Your task to perform on an android device: toggle sleep mode Image 0: 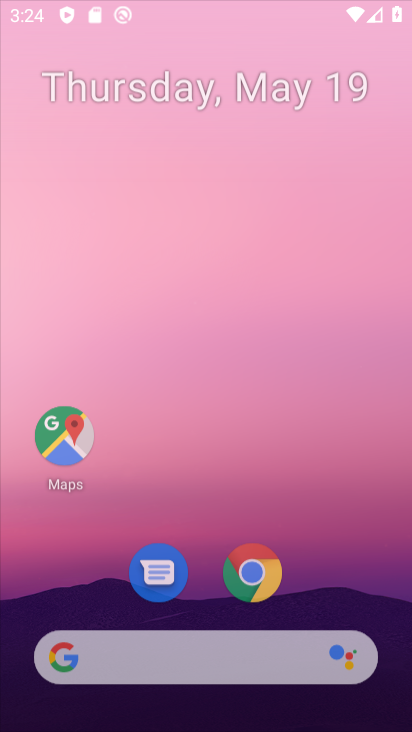
Step 0: click (371, 220)
Your task to perform on an android device: toggle sleep mode Image 1: 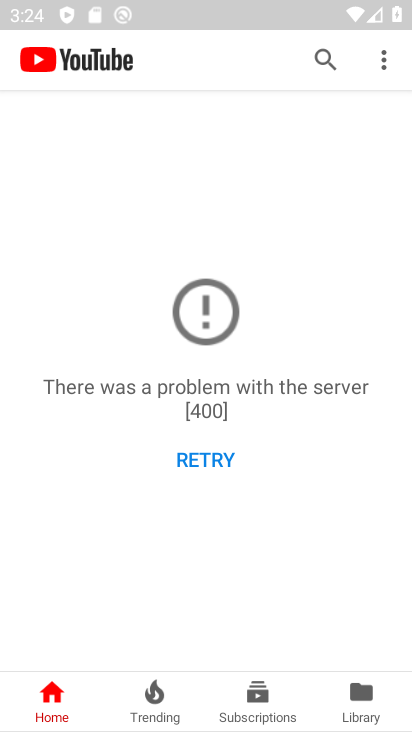
Step 1: press home button
Your task to perform on an android device: toggle sleep mode Image 2: 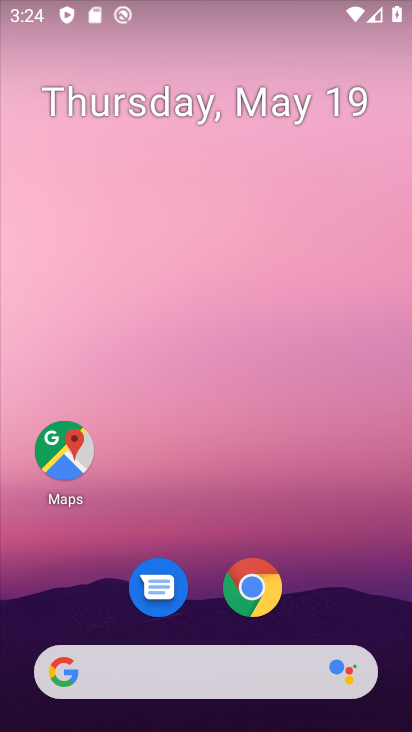
Step 2: drag from (357, 589) to (351, 128)
Your task to perform on an android device: toggle sleep mode Image 3: 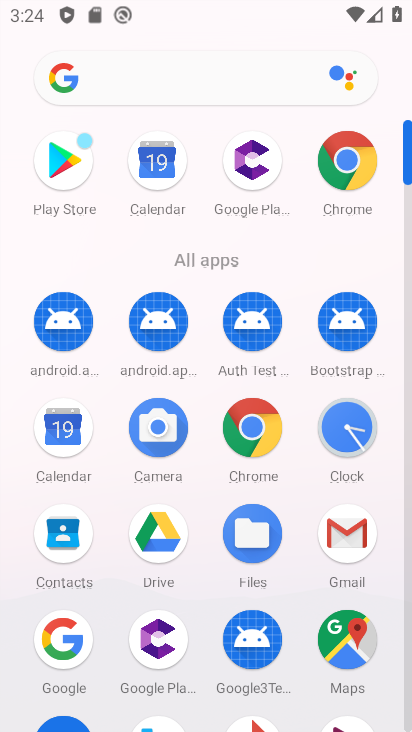
Step 3: drag from (390, 588) to (386, 226)
Your task to perform on an android device: toggle sleep mode Image 4: 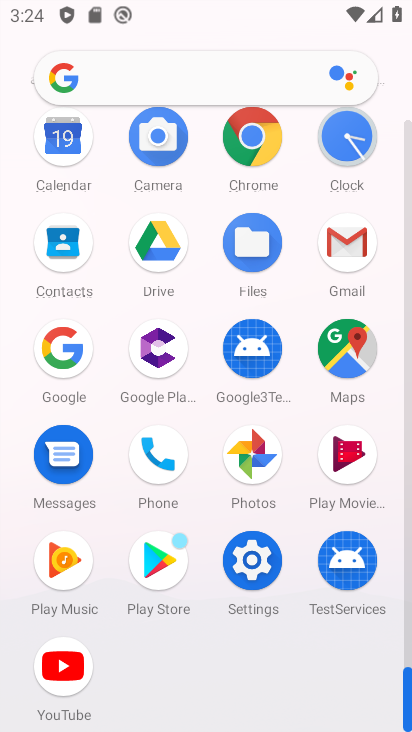
Step 4: click (256, 597)
Your task to perform on an android device: toggle sleep mode Image 5: 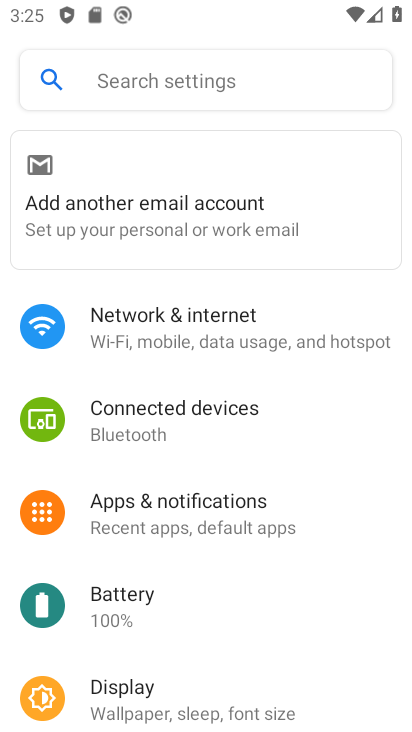
Step 5: drag from (337, 638) to (346, 501)
Your task to perform on an android device: toggle sleep mode Image 6: 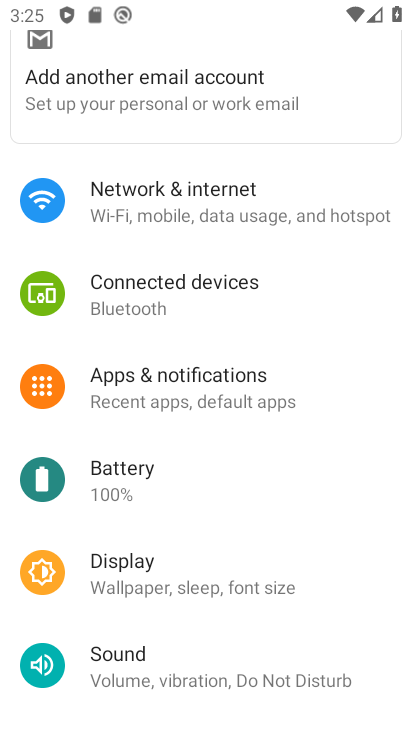
Step 6: drag from (359, 670) to (364, 524)
Your task to perform on an android device: toggle sleep mode Image 7: 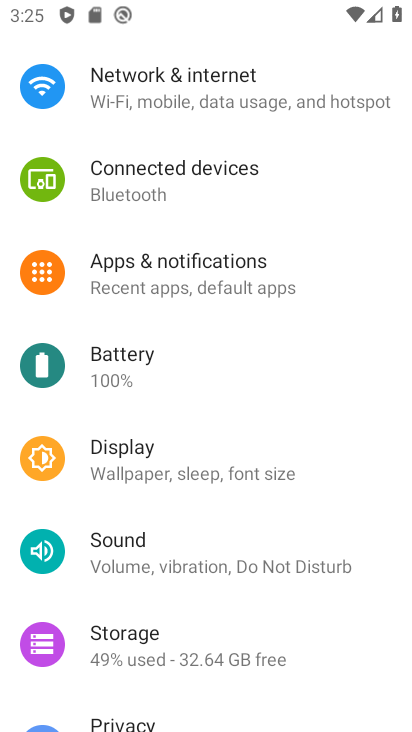
Step 7: drag from (351, 679) to (365, 523)
Your task to perform on an android device: toggle sleep mode Image 8: 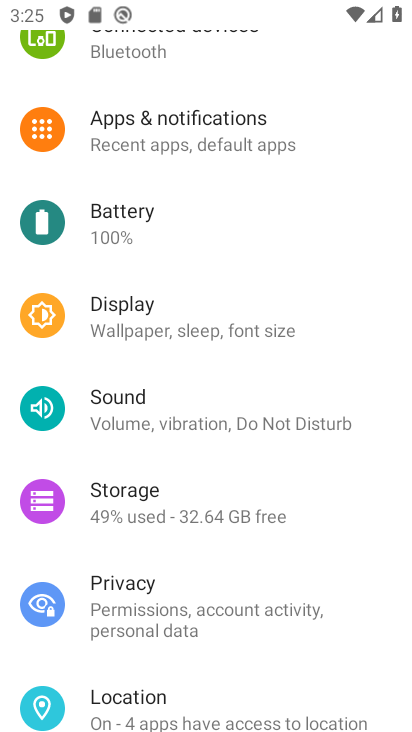
Step 8: drag from (353, 662) to (351, 521)
Your task to perform on an android device: toggle sleep mode Image 9: 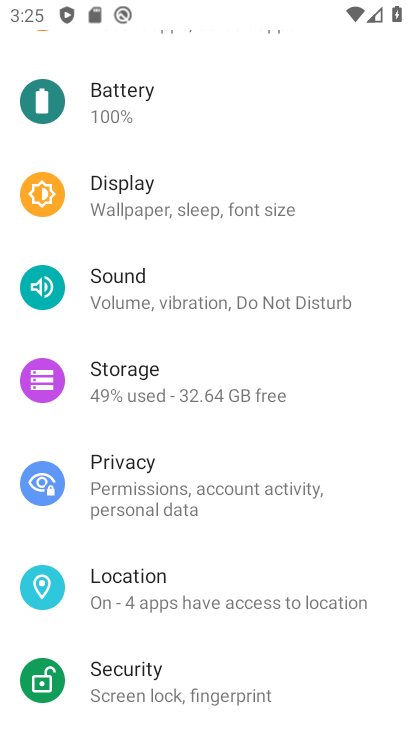
Step 9: drag from (355, 689) to (356, 537)
Your task to perform on an android device: toggle sleep mode Image 10: 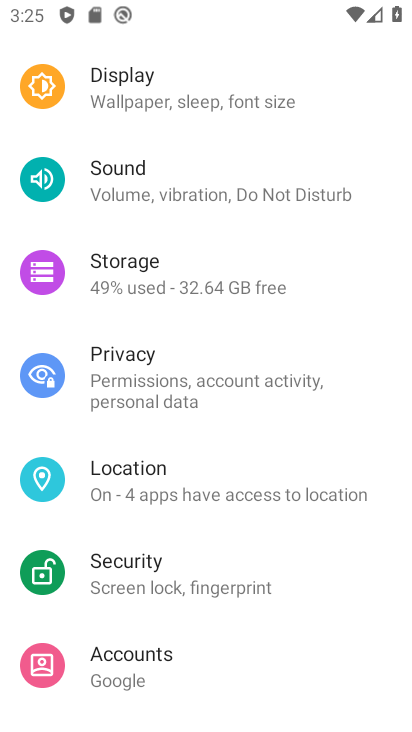
Step 10: drag from (342, 677) to (362, 546)
Your task to perform on an android device: toggle sleep mode Image 11: 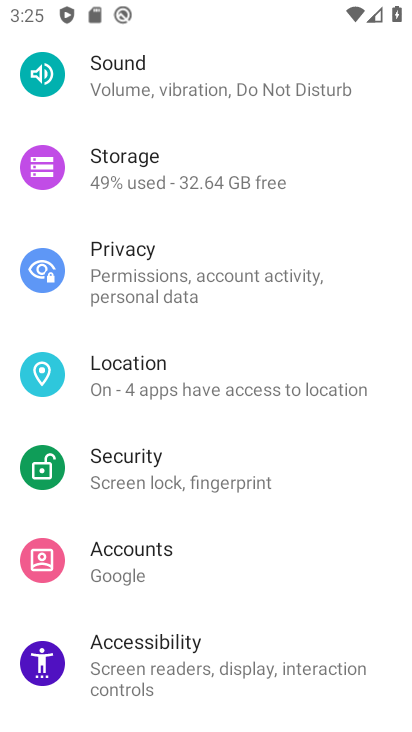
Step 11: drag from (355, 678) to (366, 549)
Your task to perform on an android device: toggle sleep mode Image 12: 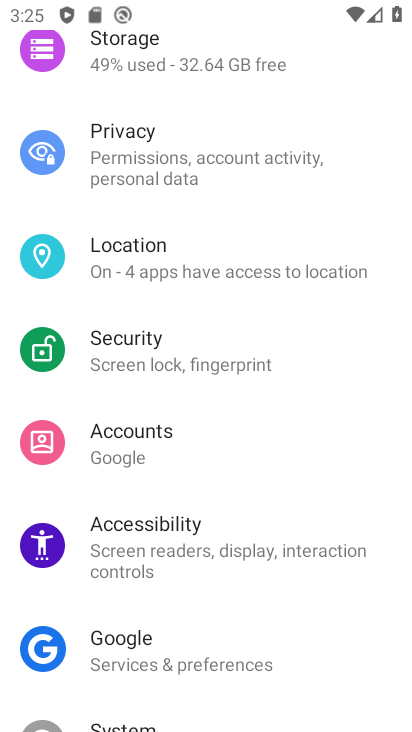
Step 12: drag from (348, 676) to (353, 578)
Your task to perform on an android device: toggle sleep mode Image 13: 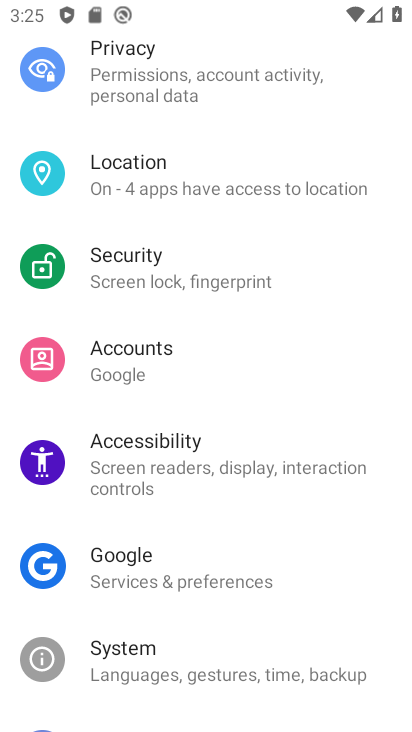
Step 13: drag from (352, 703) to (360, 580)
Your task to perform on an android device: toggle sleep mode Image 14: 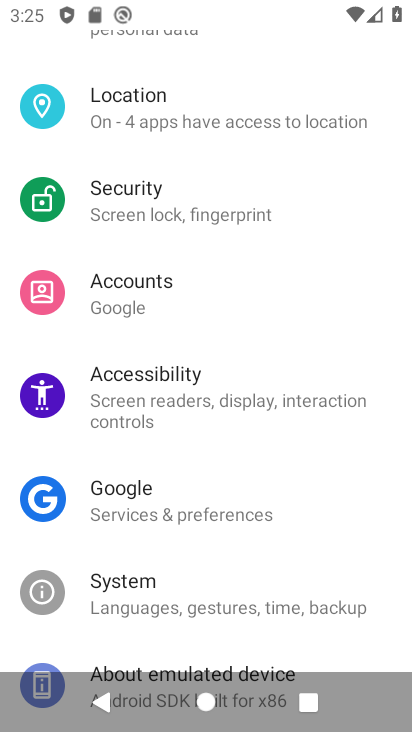
Step 14: drag from (367, 660) to (371, 546)
Your task to perform on an android device: toggle sleep mode Image 15: 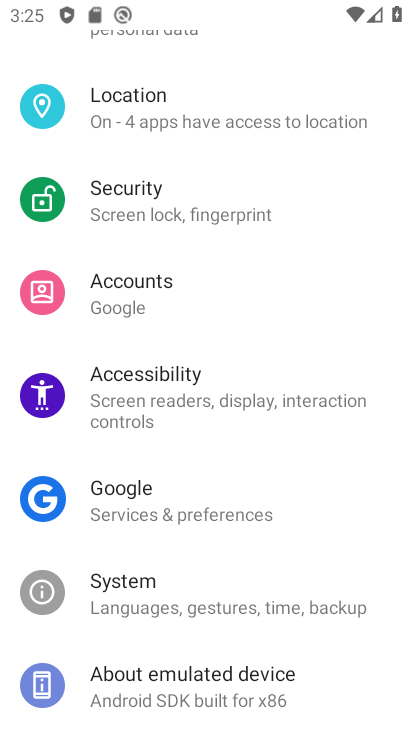
Step 15: drag from (369, 622) to (367, 447)
Your task to perform on an android device: toggle sleep mode Image 16: 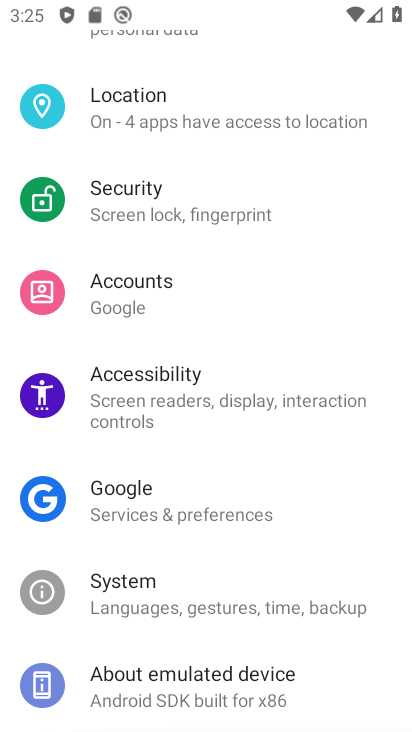
Step 16: drag from (373, 317) to (366, 481)
Your task to perform on an android device: toggle sleep mode Image 17: 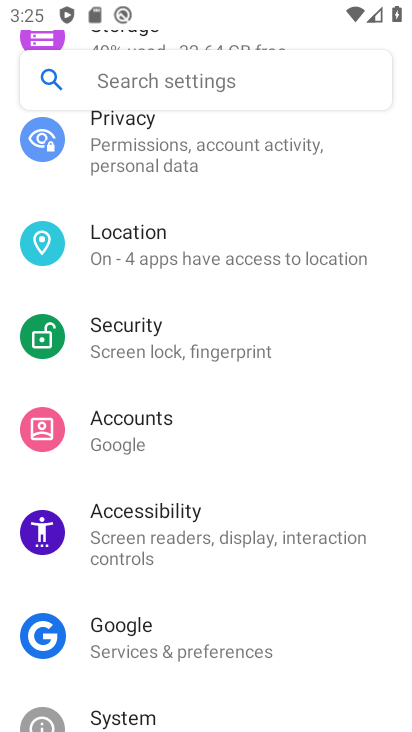
Step 17: drag from (367, 312) to (369, 447)
Your task to perform on an android device: toggle sleep mode Image 18: 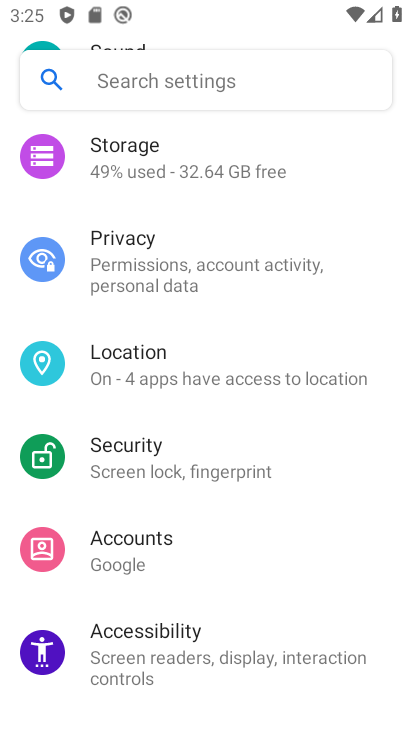
Step 18: drag from (366, 275) to (366, 416)
Your task to perform on an android device: toggle sleep mode Image 19: 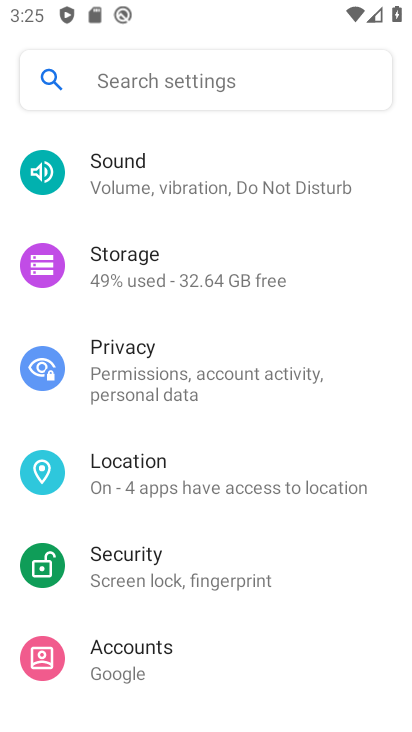
Step 19: drag from (365, 276) to (365, 388)
Your task to perform on an android device: toggle sleep mode Image 20: 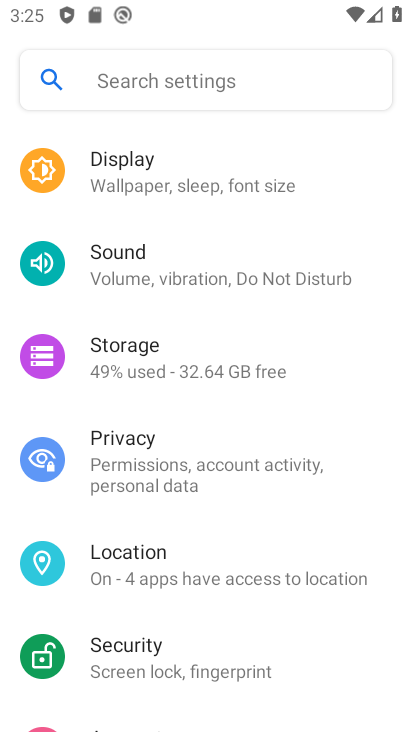
Step 20: drag from (359, 227) to (354, 362)
Your task to perform on an android device: toggle sleep mode Image 21: 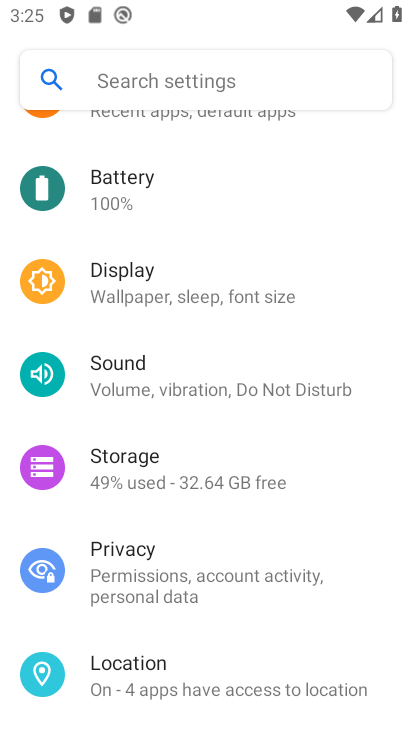
Step 21: drag from (349, 222) to (348, 347)
Your task to perform on an android device: toggle sleep mode Image 22: 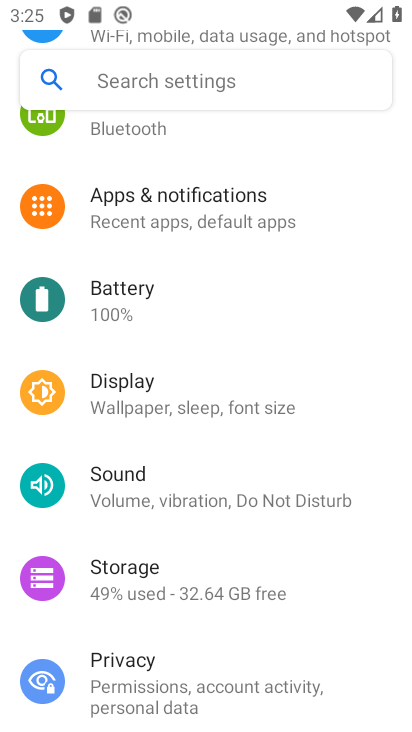
Step 22: click (233, 407)
Your task to perform on an android device: toggle sleep mode Image 23: 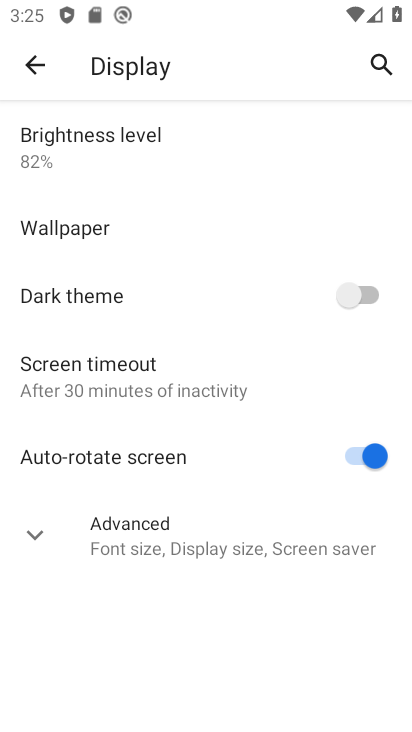
Step 23: click (191, 540)
Your task to perform on an android device: toggle sleep mode Image 24: 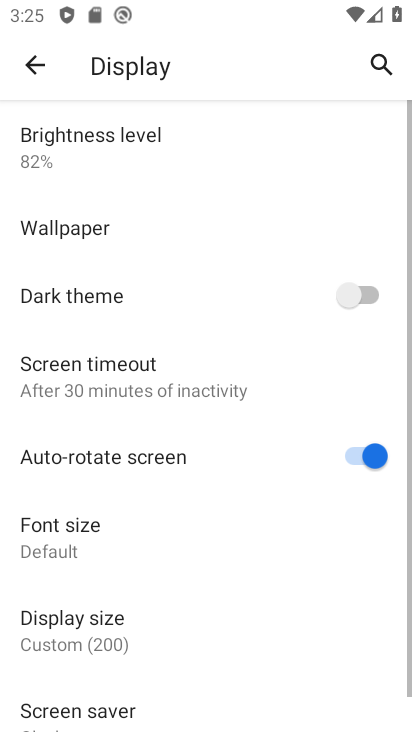
Step 24: task complete